Your task to perform on an android device: turn off picture-in-picture Image 0: 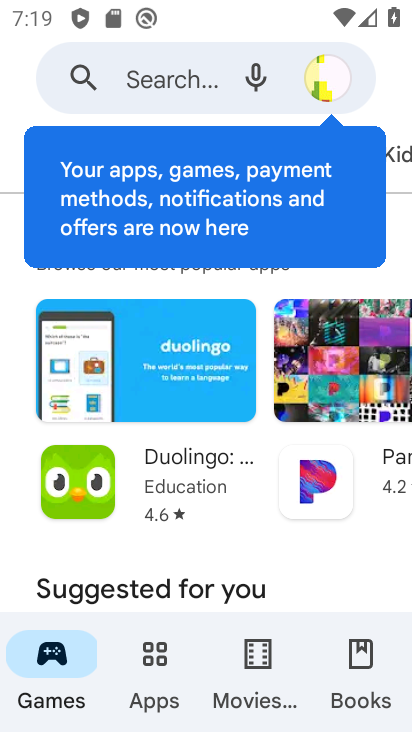
Step 0: press home button
Your task to perform on an android device: turn off picture-in-picture Image 1: 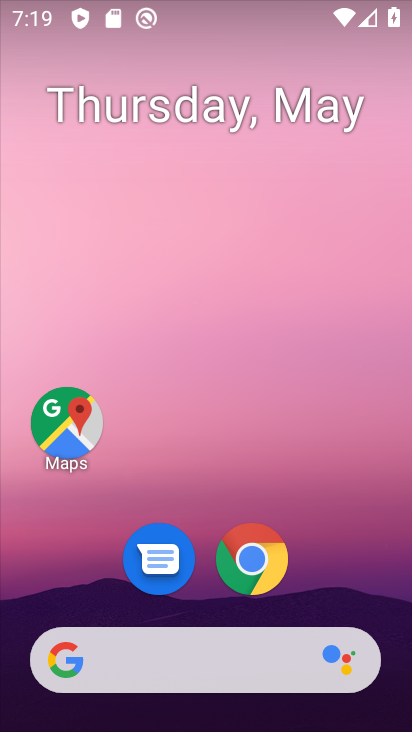
Step 1: click (251, 573)
Your task to perform on an android device: turn off picture-in-picture Image 2: 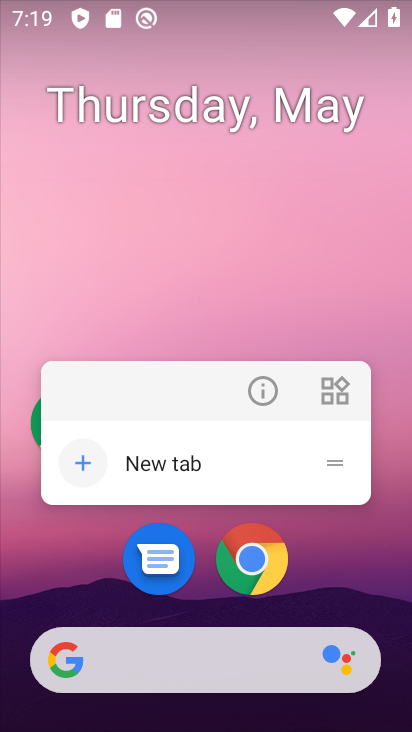
Step 2: click (276, 395)
Your task to perform on an android device: turn off picture-in-picture Image 3: 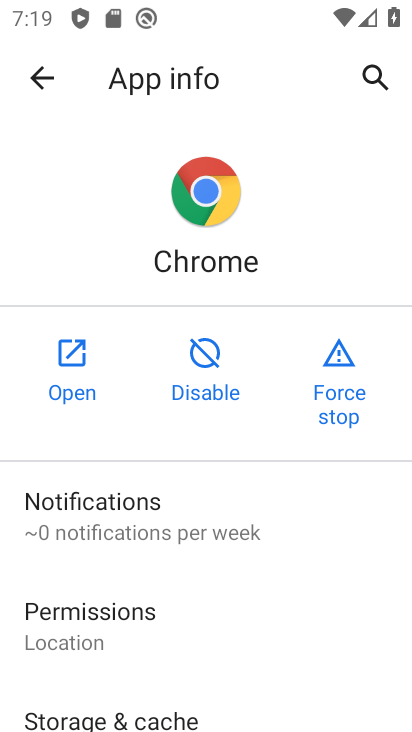
Step 3: drag from (187, 652) to (197, 168)
Your task to perform on an android device: turn off picture-in-picture Image 4: 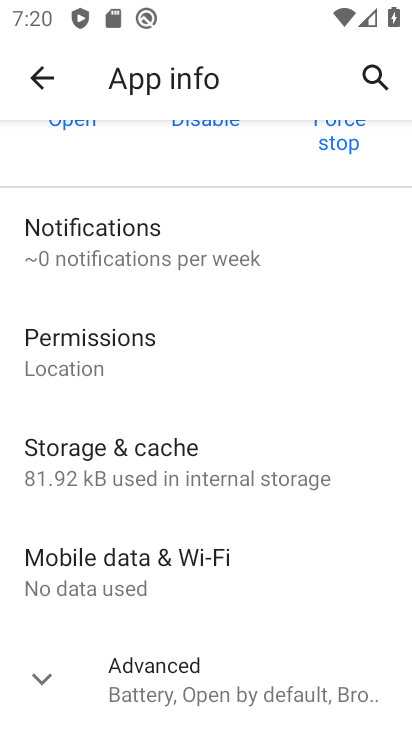
Step 4: click (174, 700)
Your task to perform on an android device: turn off picture-in-picture Image 5: 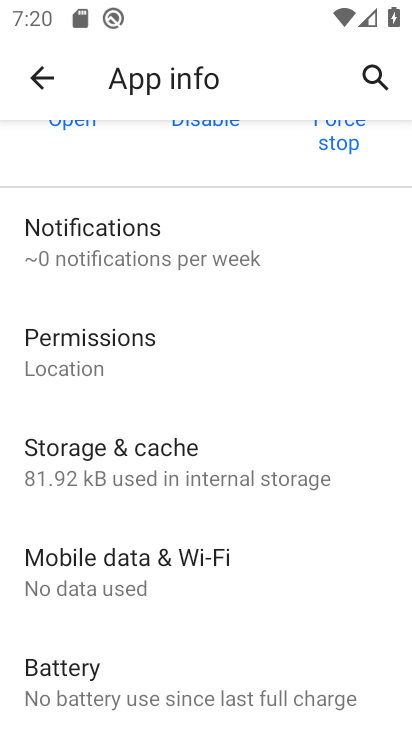
Step 5: drag from (182, 693) to (238, 211)
Your task to perform on an android device: turn off picture-in-picture Image 6: 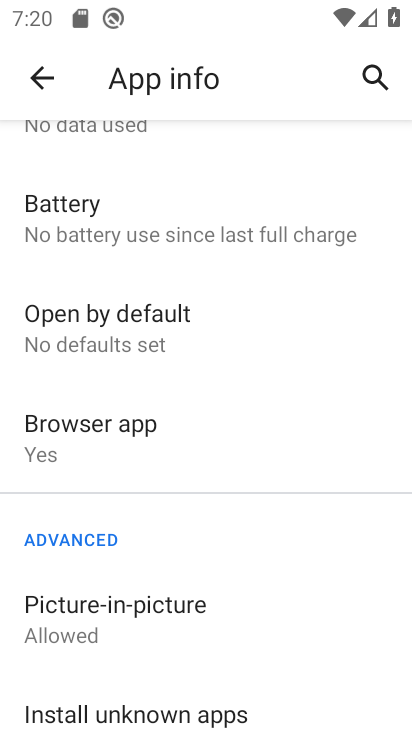
Step 6: click (113, 629)
Your task to perform on an android device: turn off picture-in-picture Image 7: 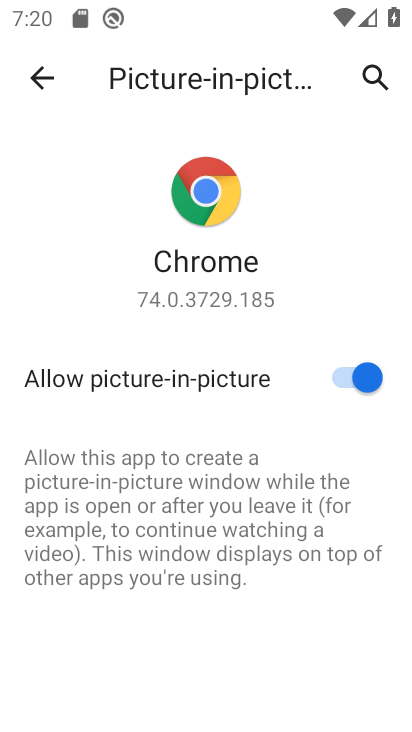
Step 7: click (347, 373)
Your task to perform on an android device: turn off picture-in-picture Image 8: 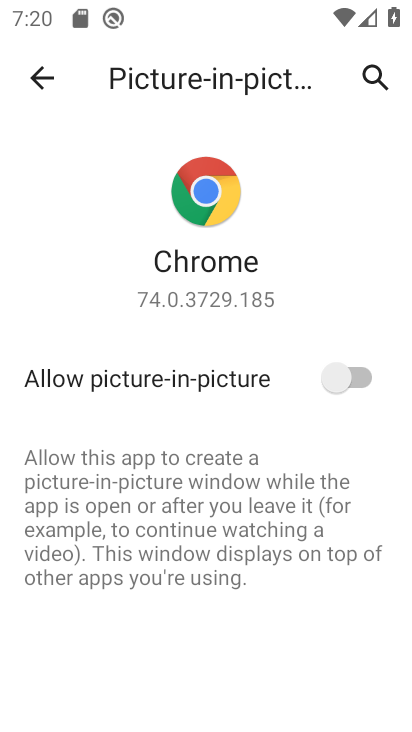
Step 8: task complete